Your task to perform on an android device: stop showing notifications on the lock screen Image 0: 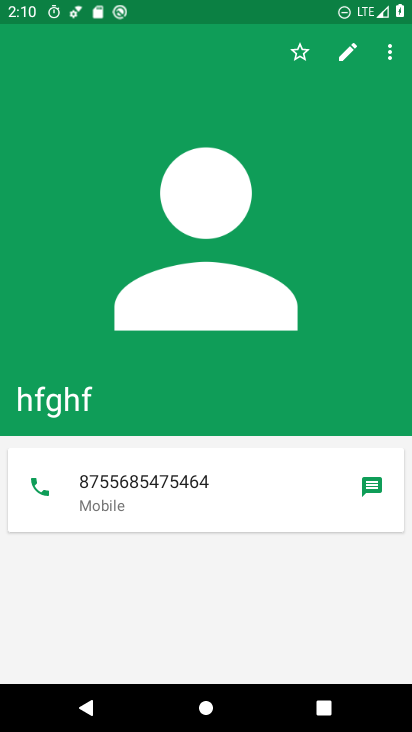
Step 0: press home button
Your task to perform on an android device: stop showing notifications on the lock screen Image 1: 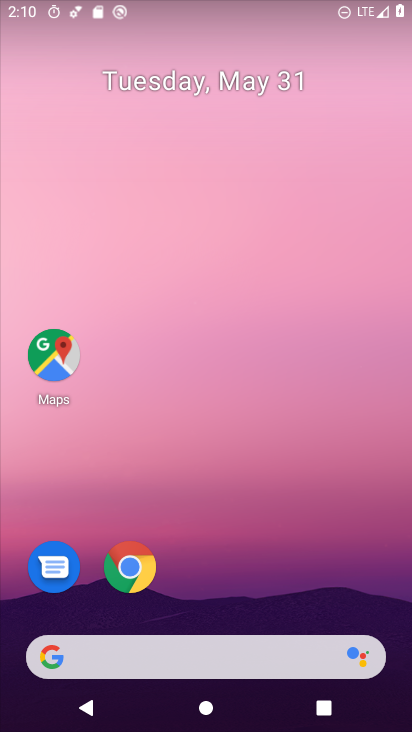
Step 1: drag from (214, 584) to (214, 232)
Your task to perform on an android device: stop showing notifications on the lock screen Image 2: 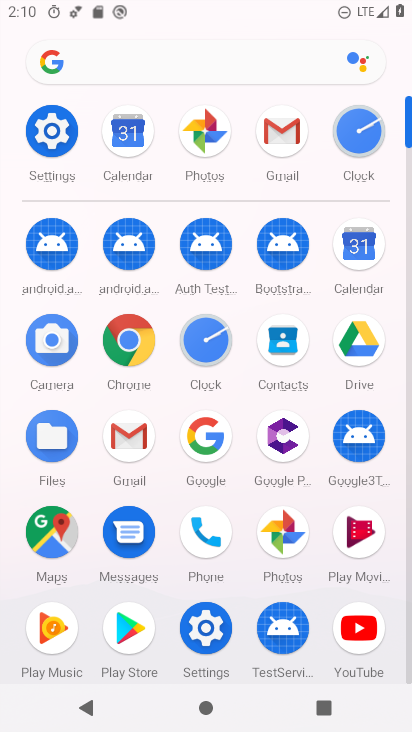
Step 2: click (67, 133)
Your task to perform on an android device: stop showing notifications on the lock screen Image 3: 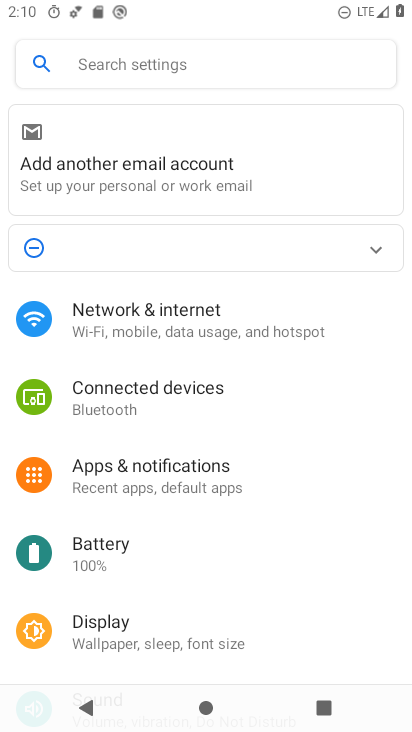
Step 3: click (150, 437)
Your task to perform on an android device: stop showing notifications on the lock screen Image 4: 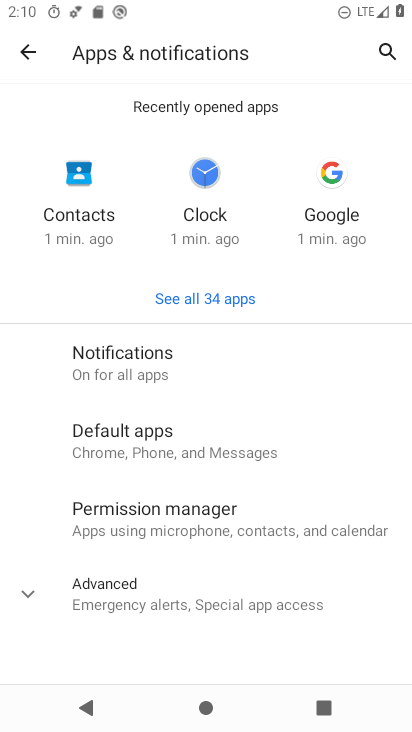
Step 4: click (160, 367)
Your task to perform on an android device: stop showing notifications on the lock screen Image 5: 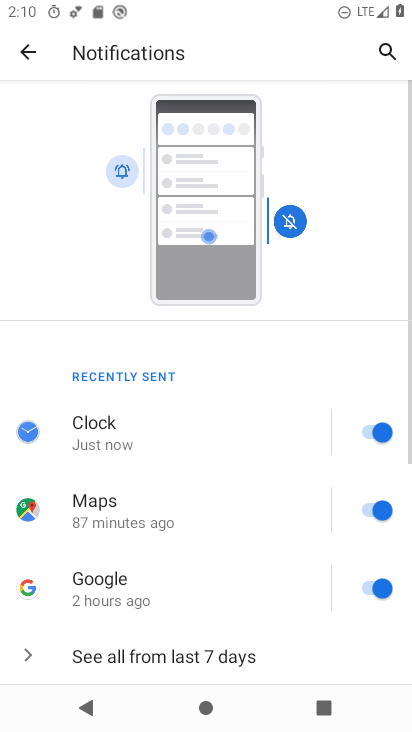
Step 5: drag from (197, 577) to (200, 196)
Your task to perform on an android device: stop showing notifications on the lock screen Image 6: 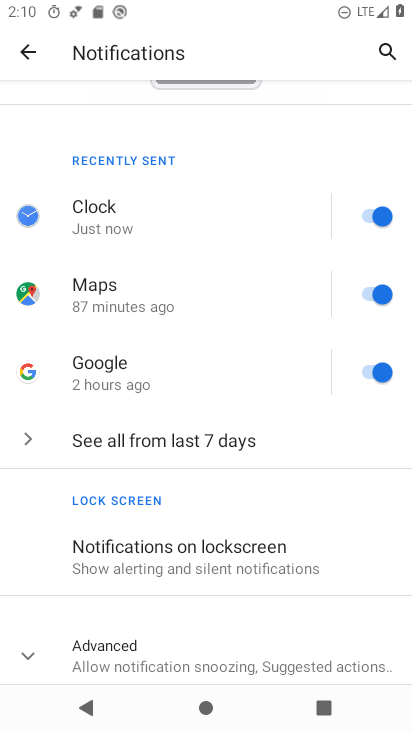
Step 6: click (198, 561)
Your task to perform on an android device: stop showing notifications on the lock screen Image 7: 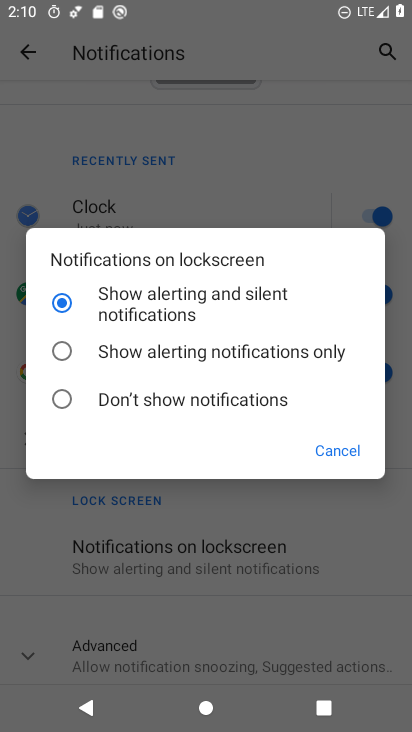
Step 7: click (124, 398)
Your task to perform on an android device: stop showing notifications on the lock screen Image 8: 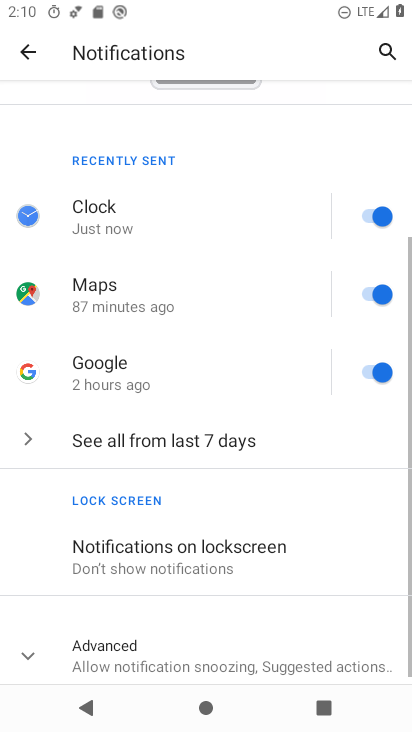
Step 8: task complete